Your task to perform on an android device: Go to Android settings Image 0: 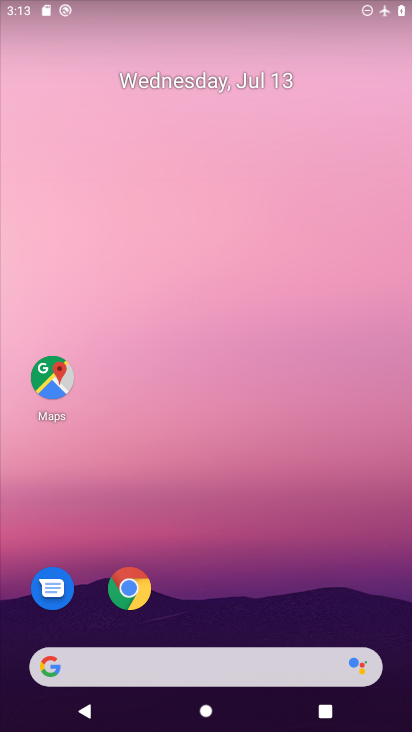
Step 0: drag from (216, 630) to (193, 186)
Your task to perform on an android device: Go to Android settings Image 1: 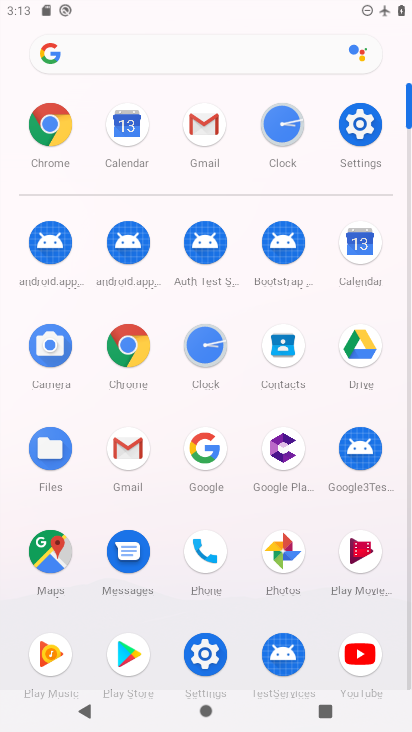
Step 1: click (356, 131)
Your task to perform on an android device: Go to Android settings Image 2: 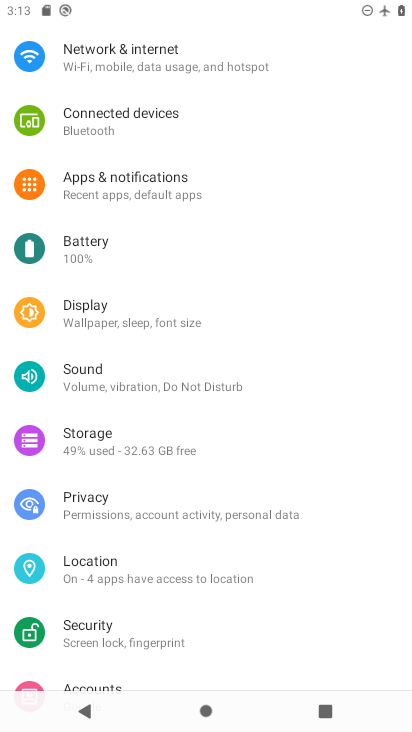
Step 2: drag from (331, 161) to (259, 484)
Your task to perform on an android device: Go to Android settings Image 3: 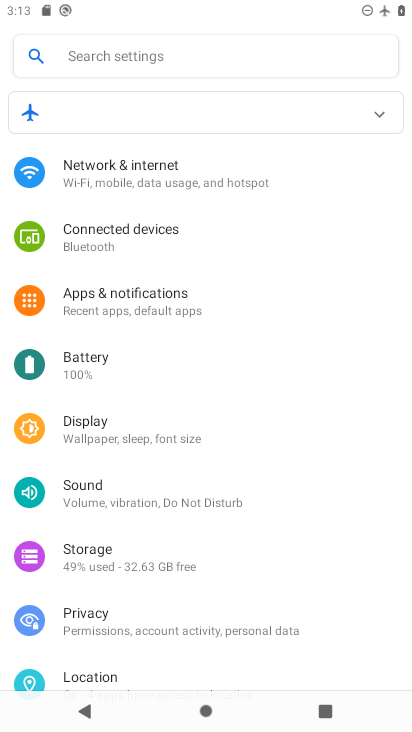
Step 3: click (186, 172)
Your task to perform on an android device: Go to Android settings Image 4: 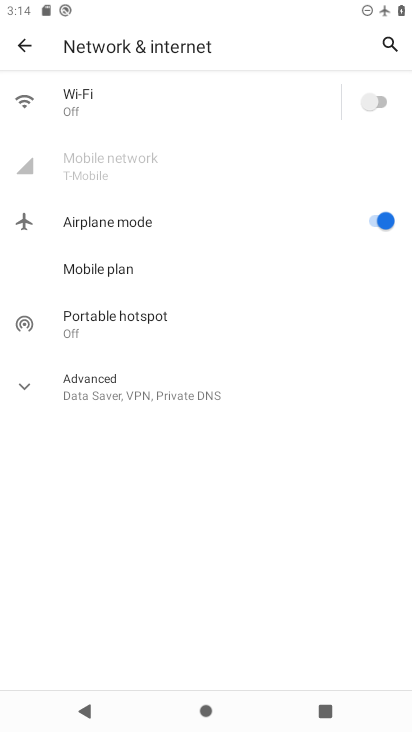
Step 4: click (31, 46)
Your task to perform on an android device: Go to Android settings Image 5: 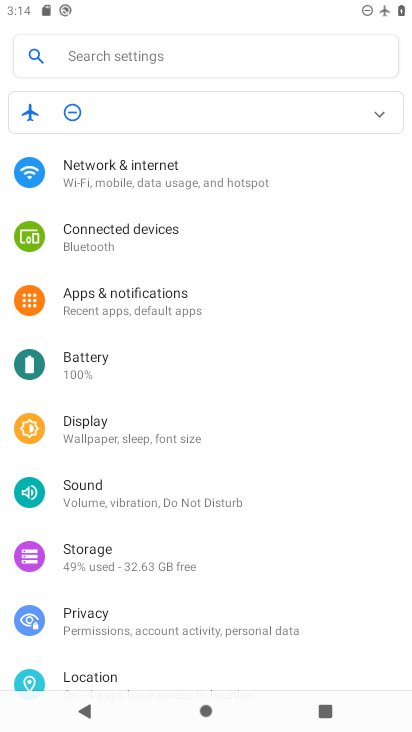
Step 5: task complete